Your task to perform on an android device: Is it going to rain this weekend? Image 0: 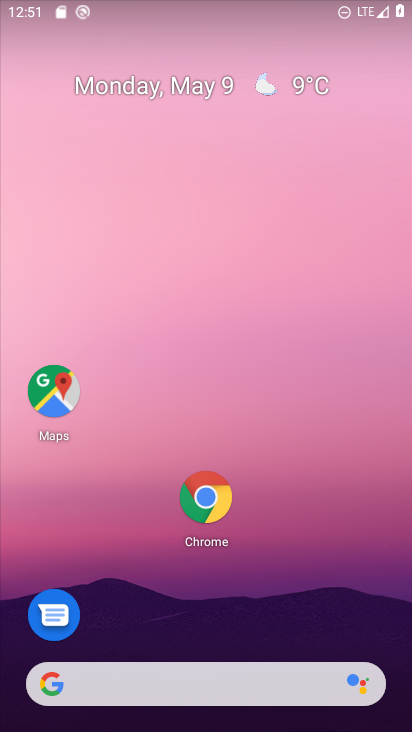
Step 0: click (308, 83)
Your task to perform on an android device: Is it going to rain this weekend? Image 1: 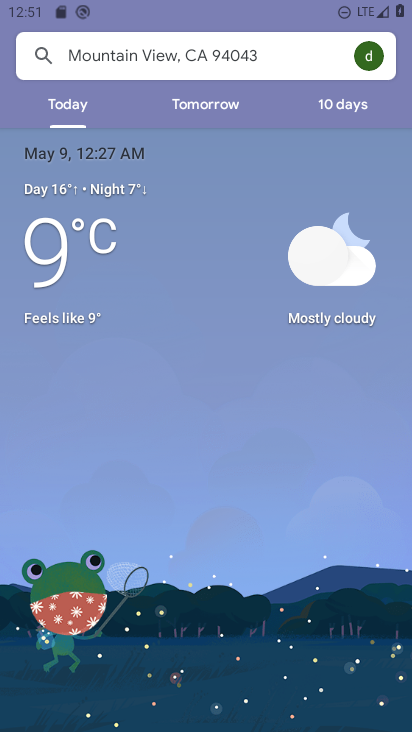
Step 1: click (330, 119)
Your task to perform on an android device: Is it going to rain this weekend? Image 2: 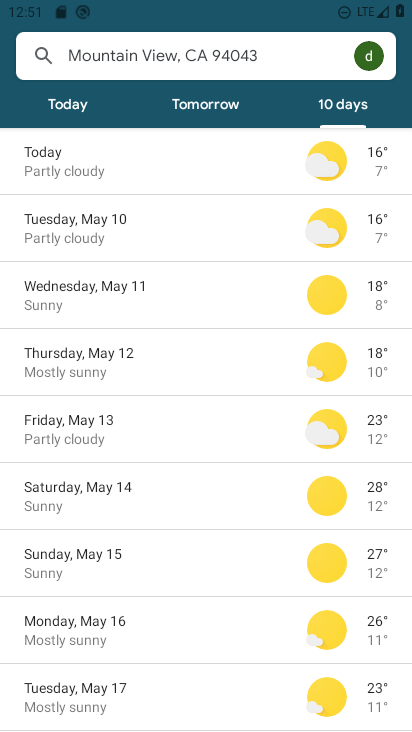
Step 2: task complete